Your task to perform on an android device: turn on bluetooth scan Image 0: 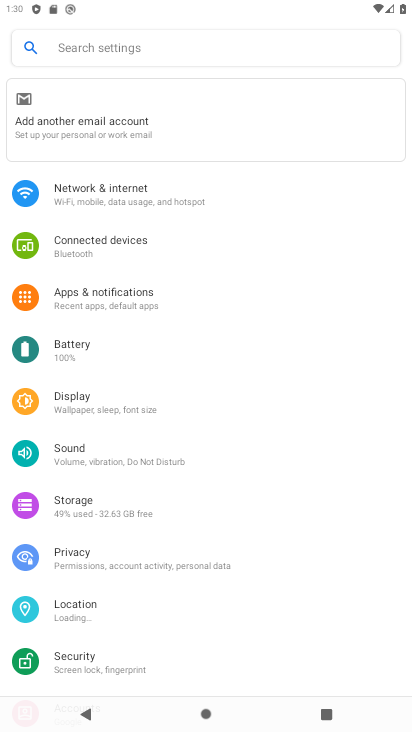
Step 0: click (83, 611)
Your task to perform on an android device: turn on bluetooth scan Image 1: 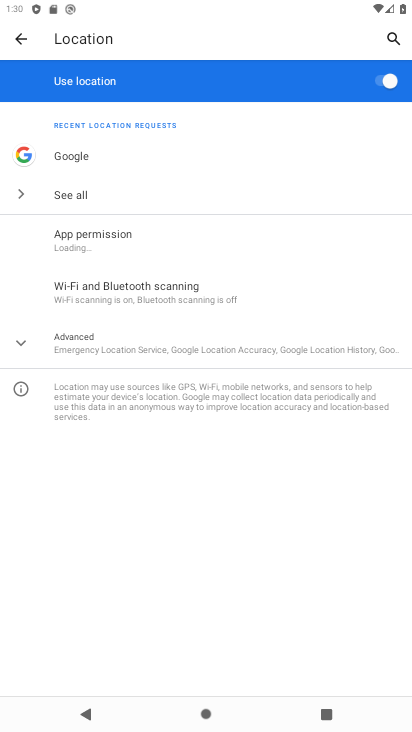
Step 1: click (97, 340)
Your task to perform on an android device: turn on bluetooth scan Image 2: 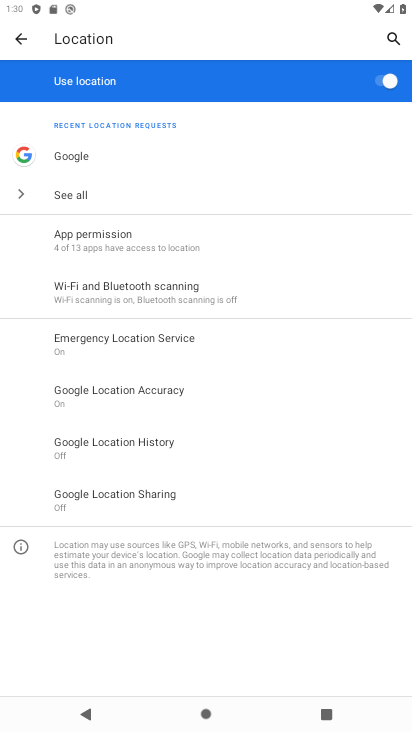
Step 2: click (114, 293)
Your task to perform on an android device: turn on bluetooth scan Image 3: 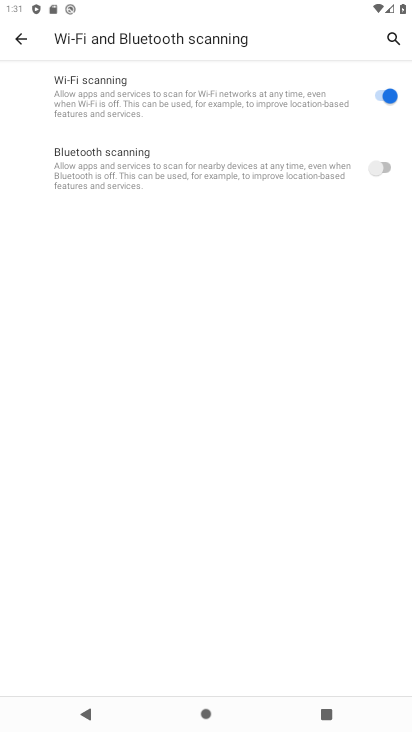
Step 3: click (390, 162)
Your task to perform on an android device: turn on bluetooth scan Image 4: 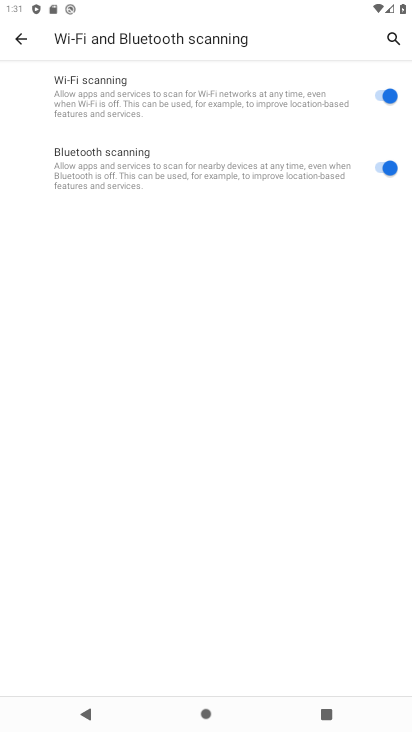
Step 4: task complete